Your task to perform on an android device: see creations saved in the google photos Image 0: 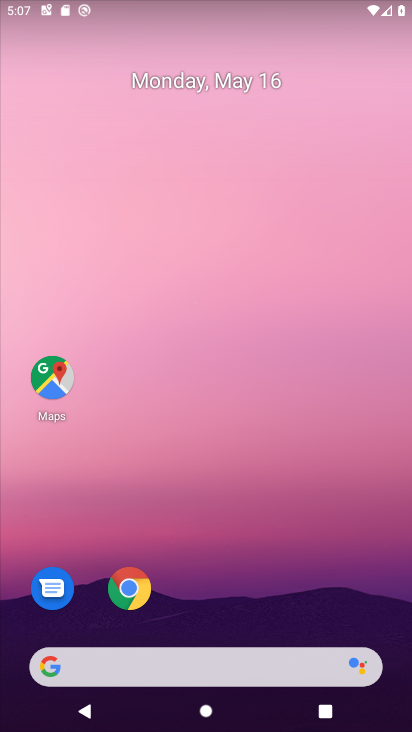
Step 0: drag from (275, 483) to (188, 44)
Your task to perform on an android device: see creations saved in the google photos Image 1: 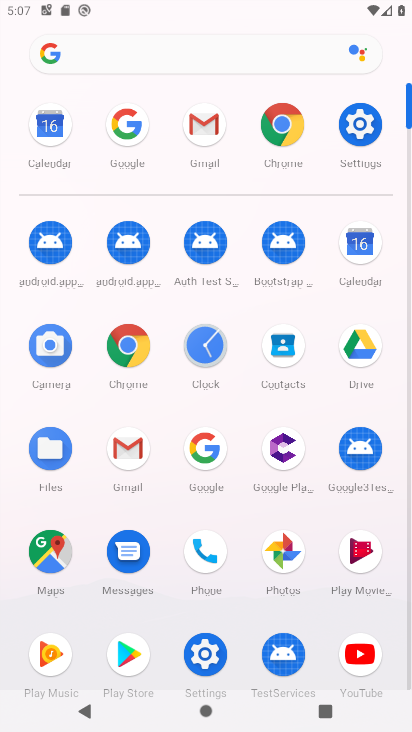
Step 1: click (279, 544)
Your task to perform on an android device: see creations saved in the google photos Image 2: 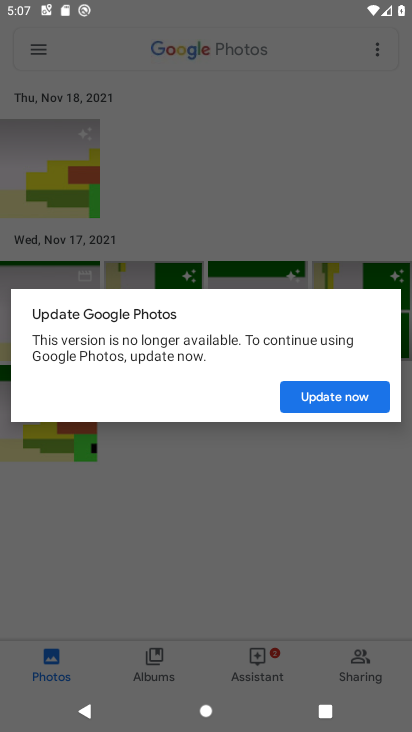
Step 2: click (328, 391)
Your task to perform on an android device: see creations saved in the google photos Image 3: 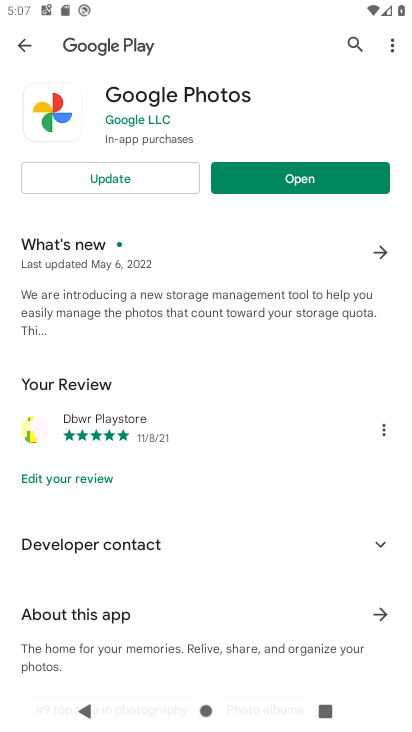
Step 3: click (147, 179)
Your task to perform on an android device: see creations saved in the google photos Image 4: 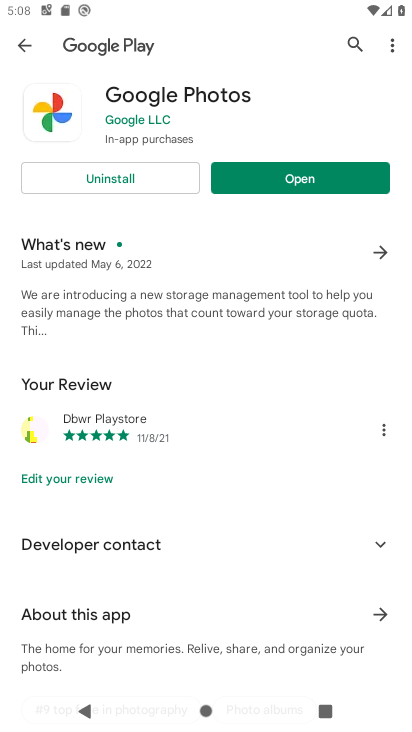
Step 4: click (260, 173)
Your task to perform on an android device: see creations saved in the google photos Image 5: 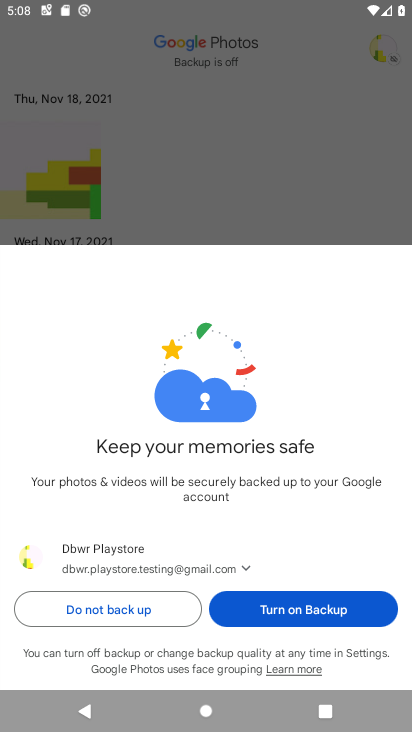
Step 5: click (160, 601)
Your task to perform on an android device: see creations saved in the google photos Image 6: 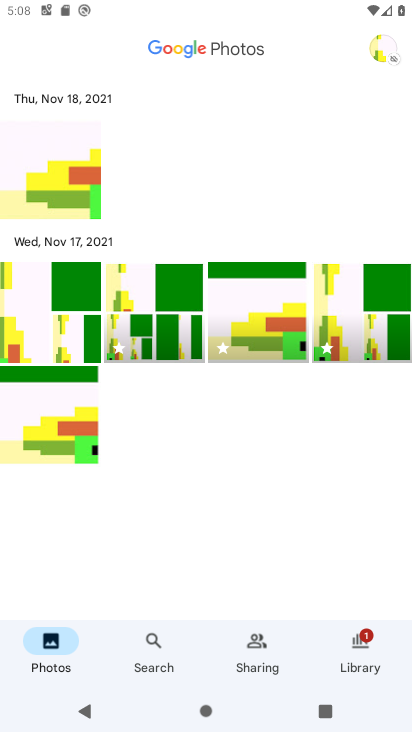
Step 6: click (155, 653)
Your task to perform on an android device: see creations saved in the google photos Image 7: 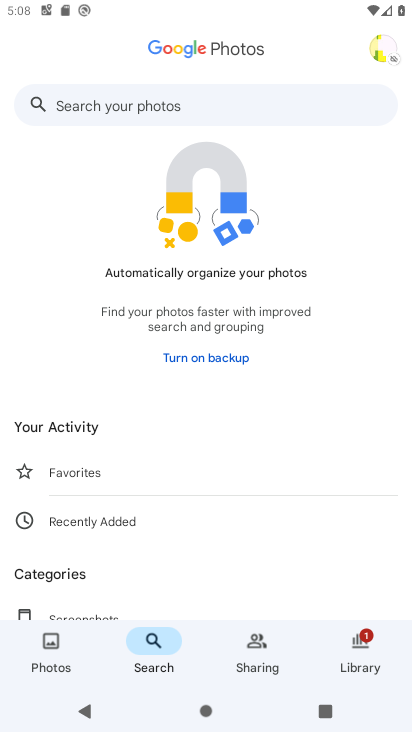
Step 7: click (127, 100)
Your task to perform on an android device: see creations saved in the google photos Image 8: 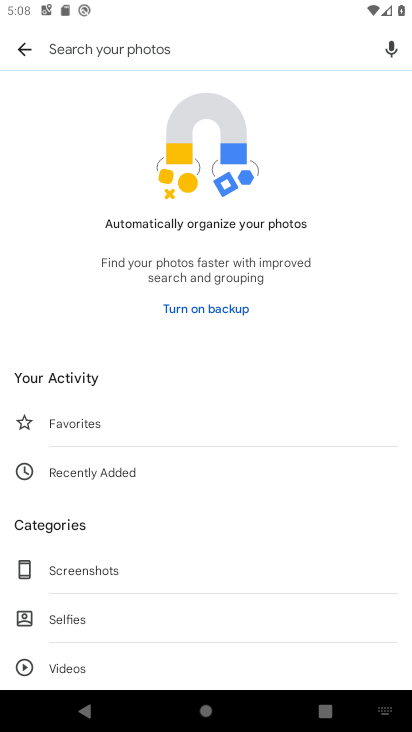
Step 8: type "creations"
Your task to perform on an android device: see creations saved in the google photos Image 9: 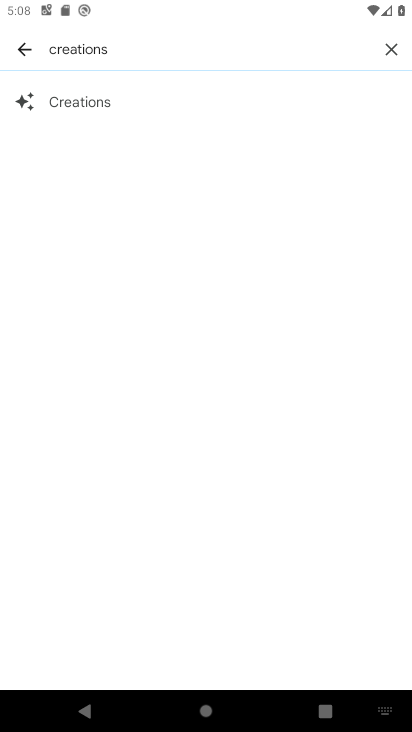
Step 9: click (115, 99)
Your task to perform on an android device: see creations saved in the google photos Image 10: 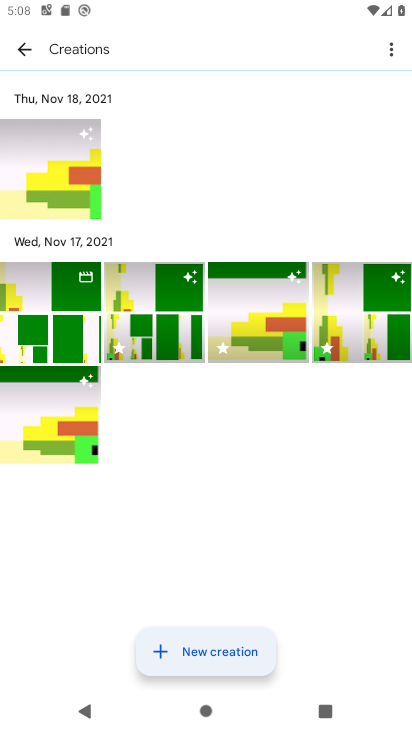
Step 10: task complete